Your task to perform on an android device: Do I have any events this weekend? Image 0: 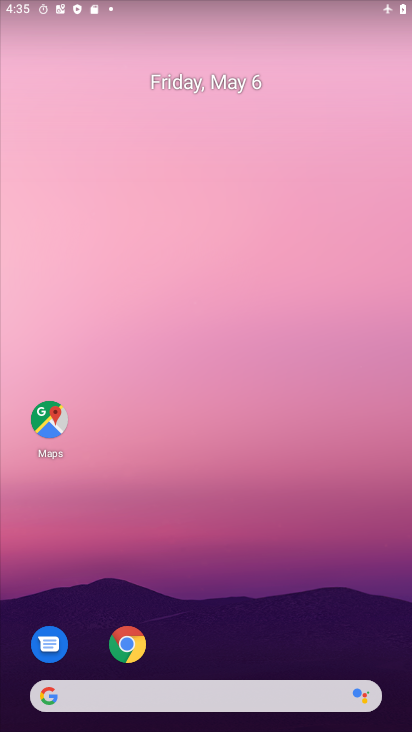
Step 0: drag from (286, 641) to (188, 105)
Your task to perform on an android device: Do I have any events this weekend? Image 1: 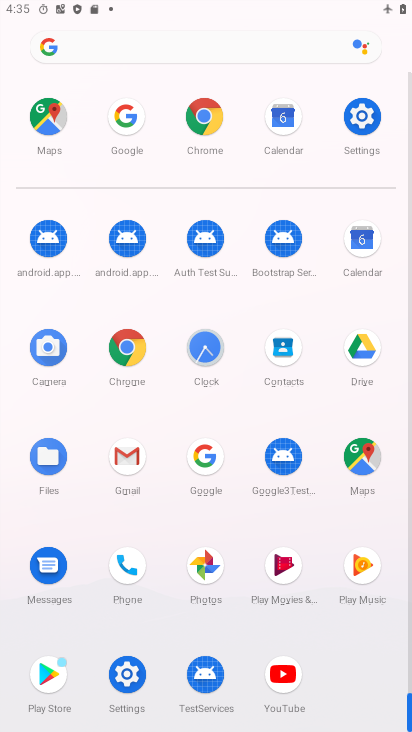
Step 1: click (360, 255)
Your task to perform on an android device: Do I have any events this weekend? Image 2: 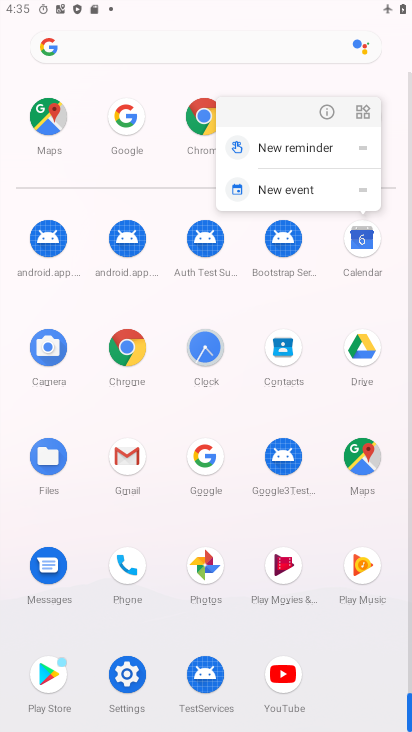
Step 2: click (364, 243)
Your task to perform on an android device: Do I have any events this weekend? Image 3: 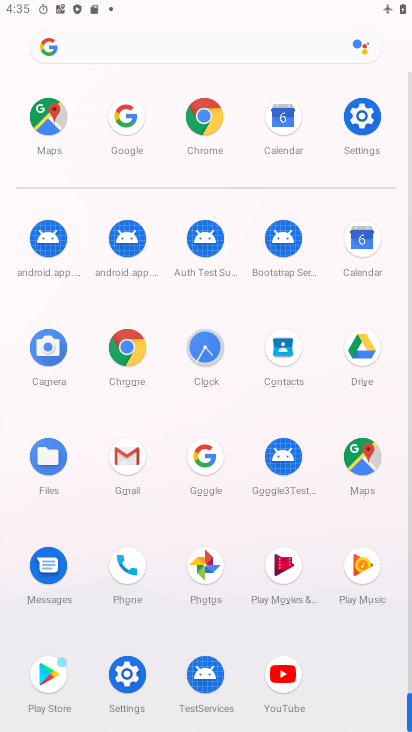
Step 3: click (344, 243)
Your task to perform on an android device: Do I have any events this weekend? Image 4: 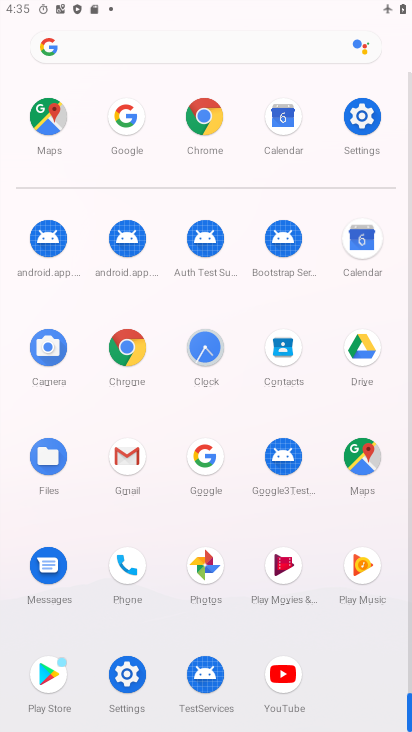
Step 4: click (344, 243)
Your task to perform on an android device: Do I have any events this weekend? Image 5: 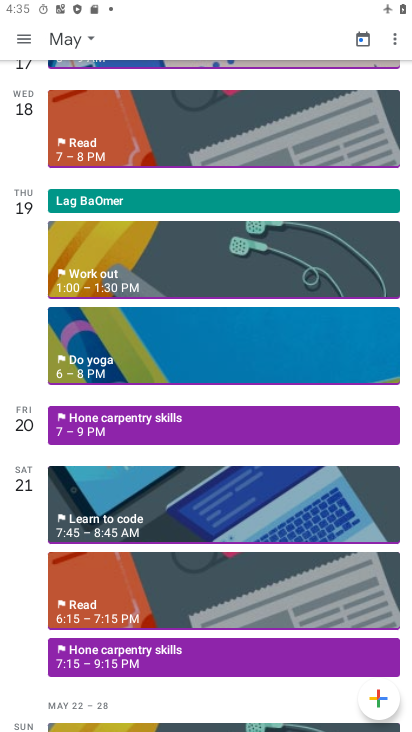
Step 5: click (349, 253)
Your task to perform on an android device: Do I have any events this weekend? Image 6: 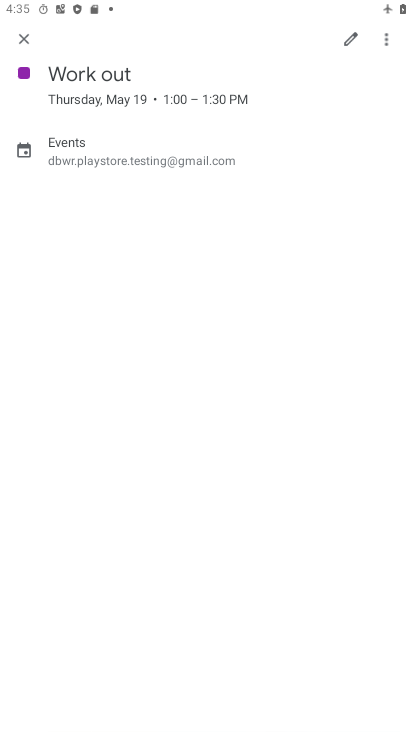
Step 6: task complete